Your task to perform on an android device: Go to location settings Image 0: 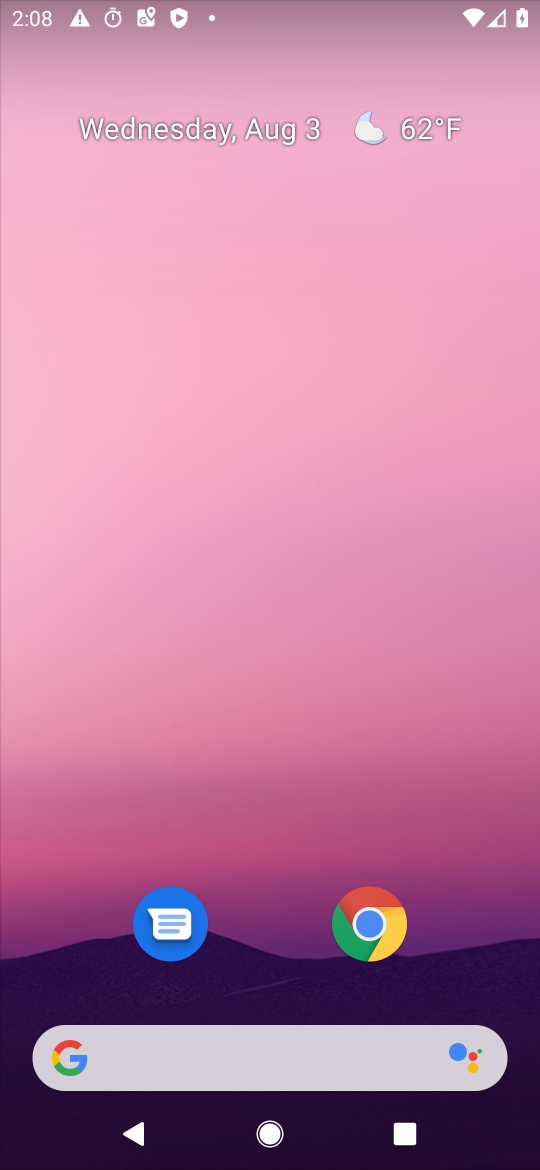
Step 0: drag from (274, 994) to (367, 22)
Your task to perform on an android device: Go to location settings Image 1: 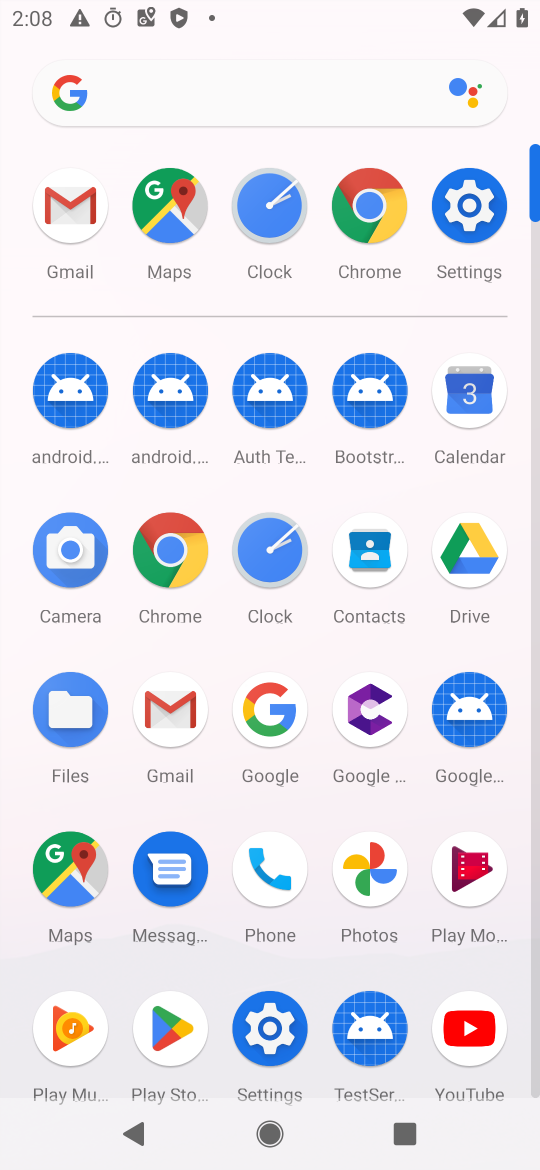
Step 1: click (462, 193)
Your task to perform on an android device: Go to location settings Image 2: 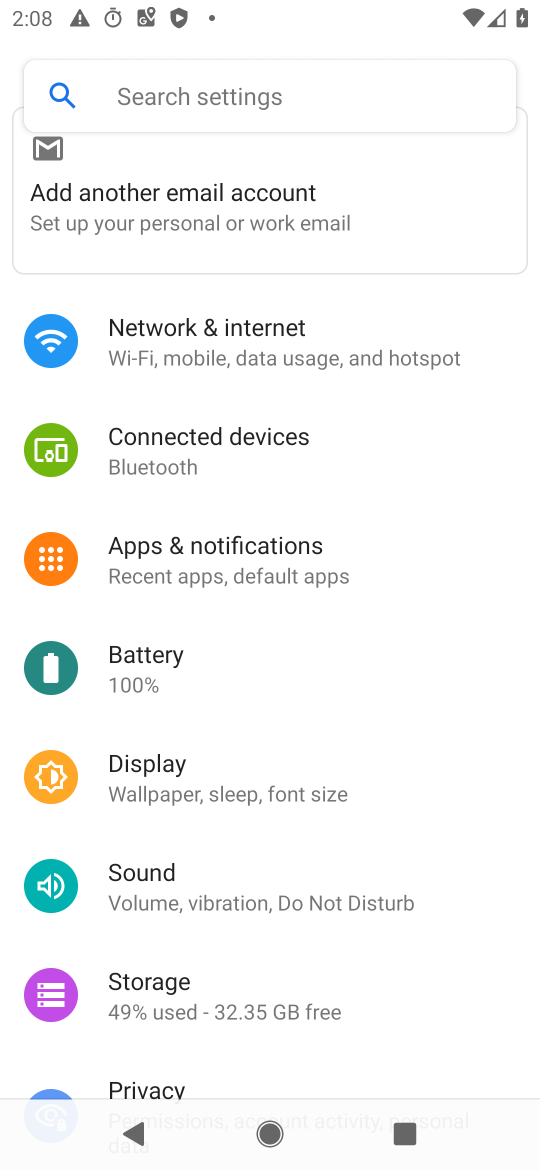
Step 2: drag from (220, 996) to (304, 165)
Your task to perform on an android device: Go to location settings Image 3: 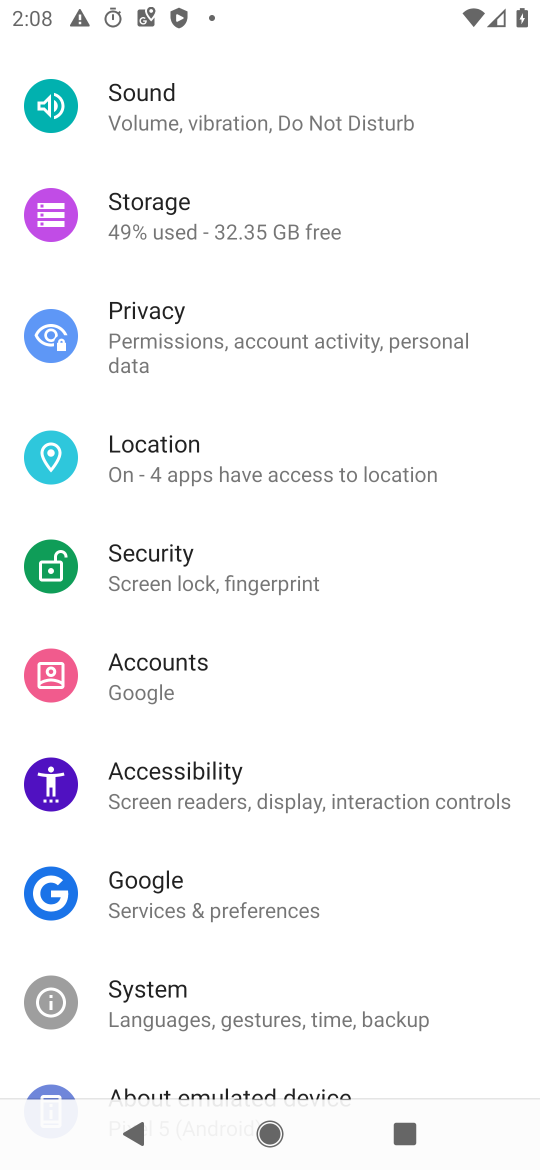
Step 3: click (201, 446)
Your task to perform on an android device: Go to location settings Image 4: 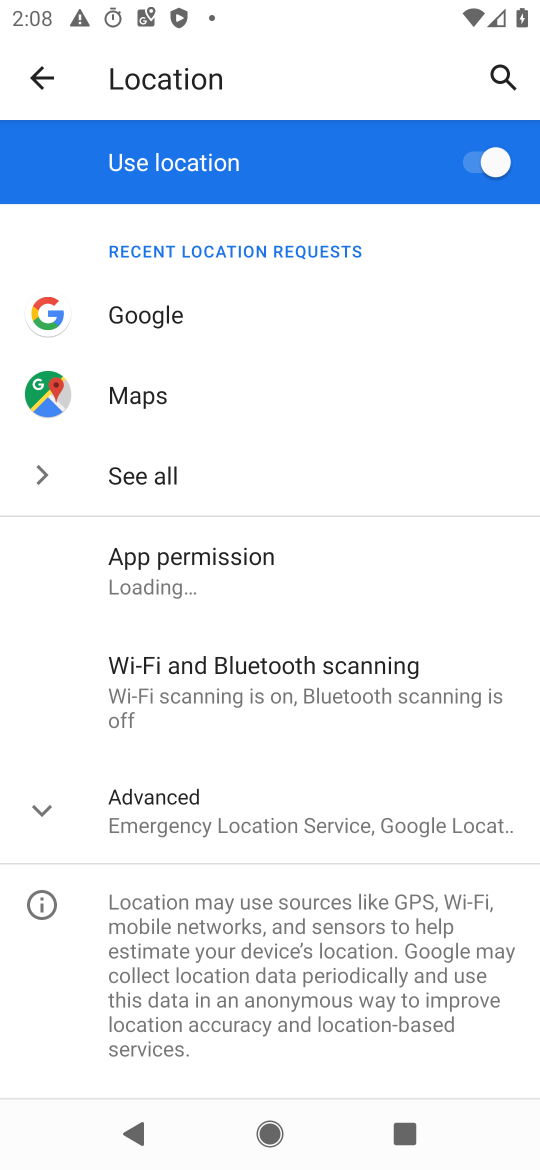
Step 4: click (71, 803)
Your task to perform on an android device: Go to location settings Image 5: 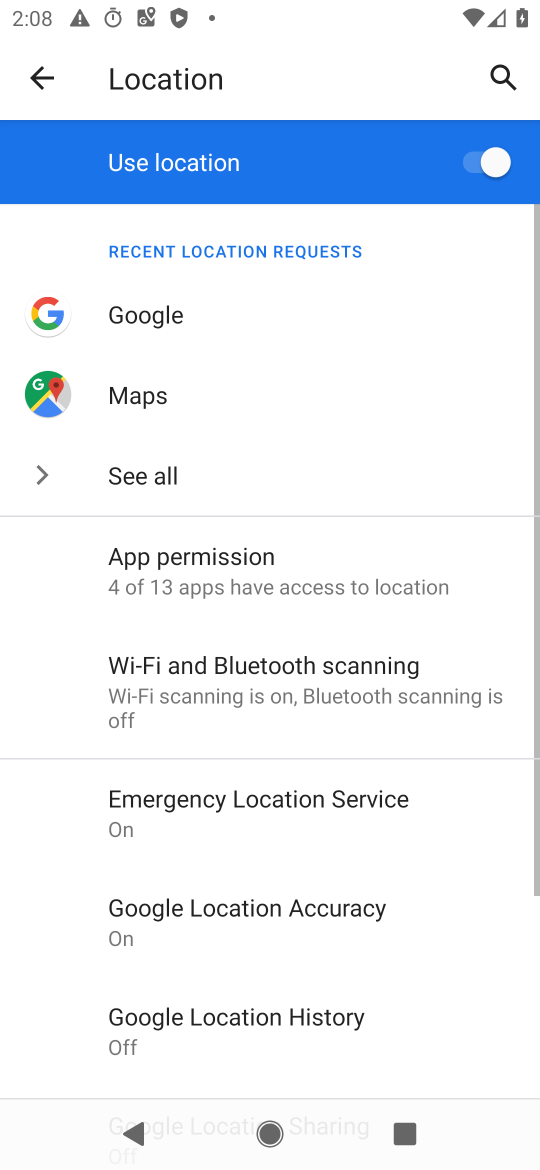
Step 5: task complete